Your task to perform on an android device: Open settings Image 0: 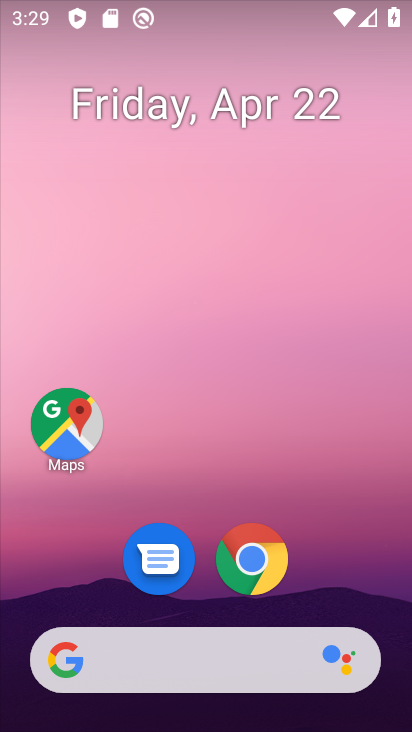
Step 0: click (235, 68)
Your task to perform on an android device: Open settings Image 1: 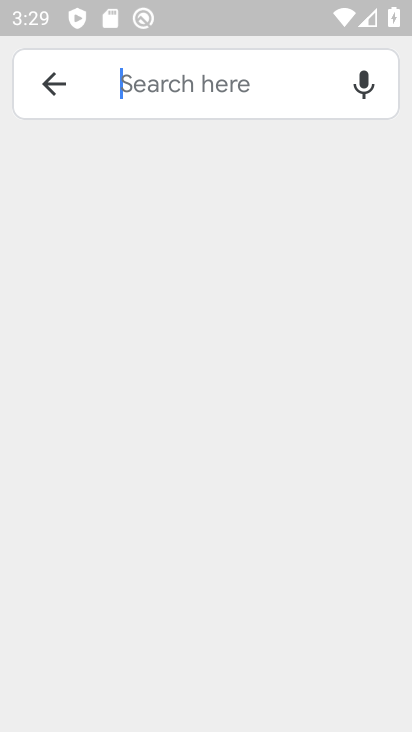
Step 1: press back button
Your task to perform on an android device: Open settings Image 2: 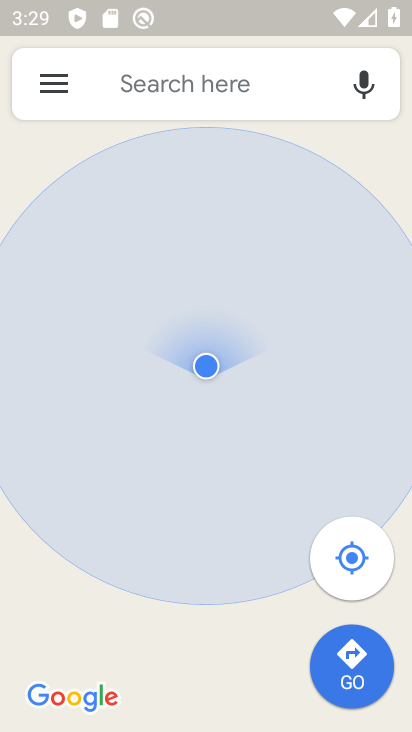
Step 2: press back button
Your task to perform on an android device: Open settings Image 3: 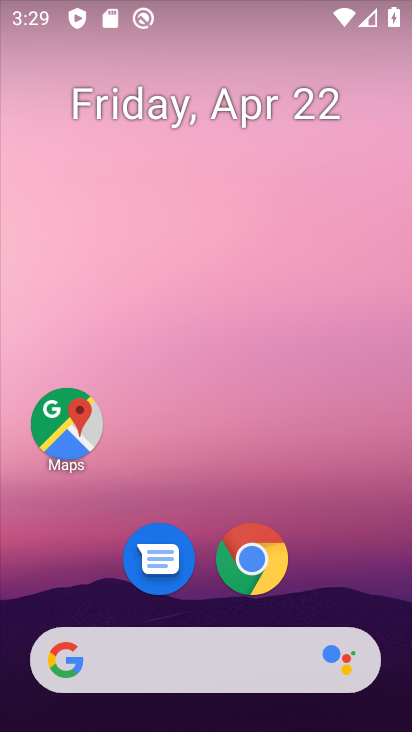
Step 3: press back button
Your task to perform on an android device: Open settings Image 4: 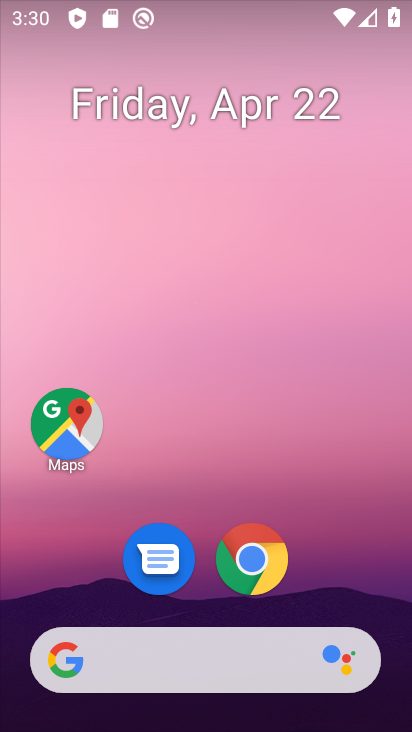
Step 4: drag from (260, 612) to (362, 63)
Your task to perform on an android device: Open settings Image 5: 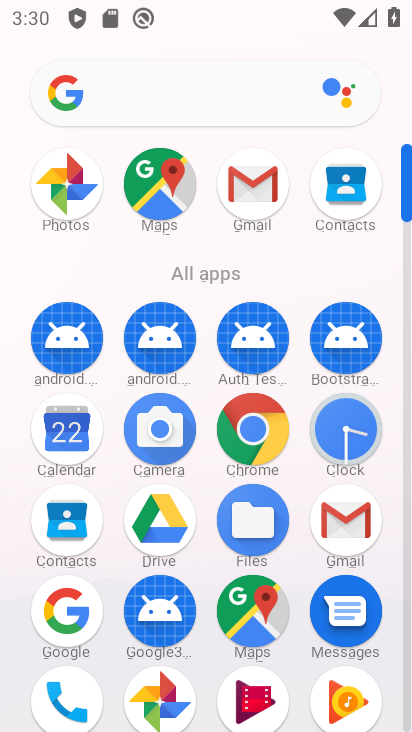
Step 5: drag from (190, 614) to (234, 352)
Your task to perform on an android device: Open settings Image 6: 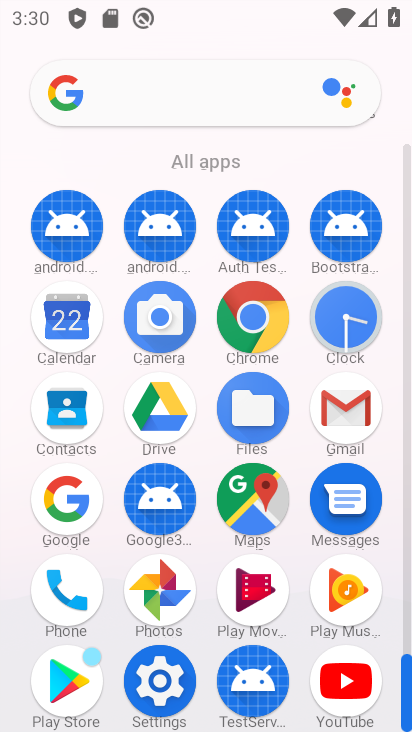
Step 6: click (166, 662)
Your task to perform on an android device: Open settings Image 7: 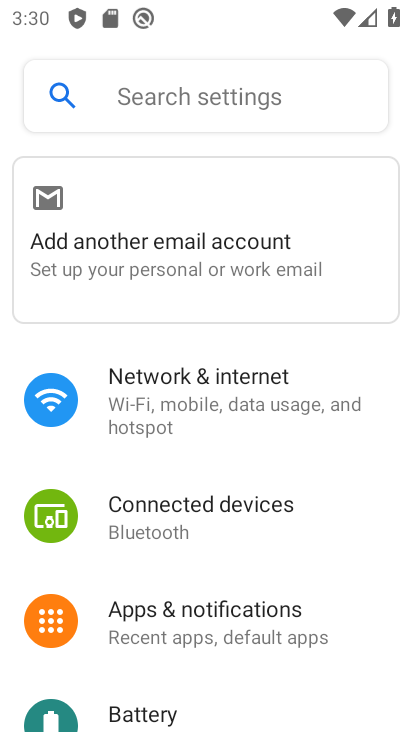
Step 7: task complete